Your task to perform on an android device: Show me popular videos on Youtube Image 0: 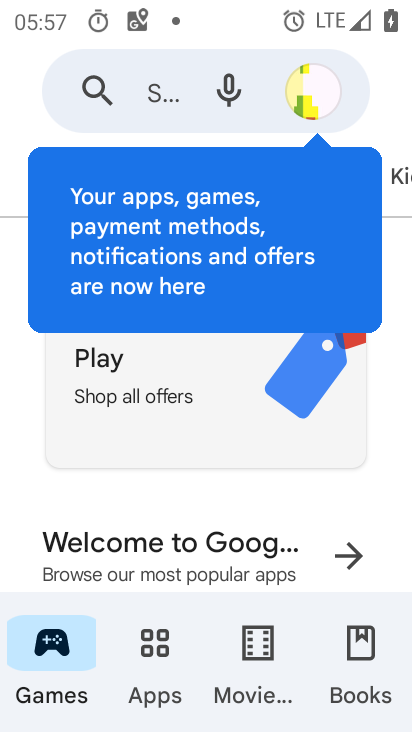
Step 0: press home button
Your task to perform on an android device: Show me popular videos on Youtube Image 1: 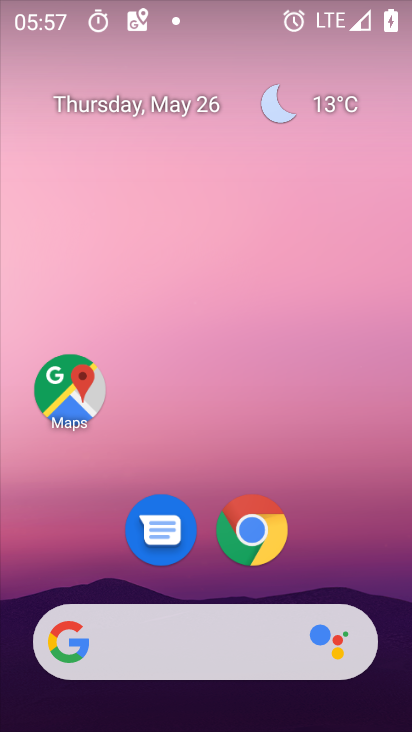
Step 1: drag from (342, 665) to (407, 600)
Your task to perform on an android device: Show me popular videos on Youtube Image 2: 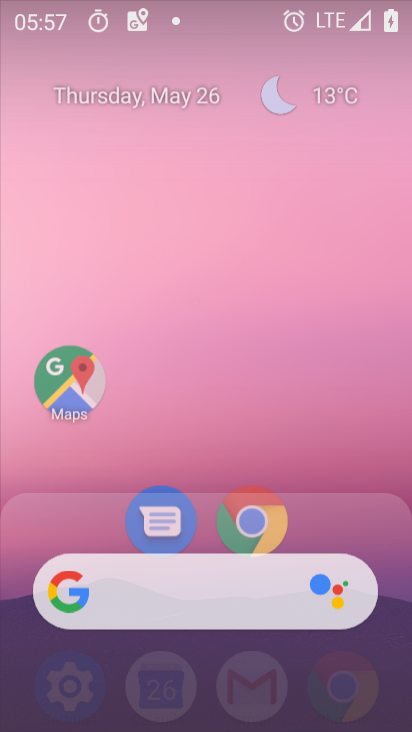
Step 2: drag from (293, 460) to (306, 1)
Your task to perform on an android device: Show me popular videos on Youtube Image 3: 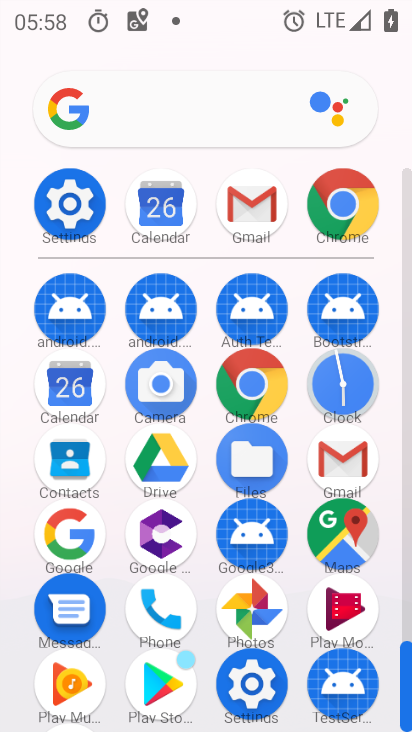
Step 3: drag from (305, 624) to (349, 163)
Your task to perform on an android device: Show me popular videos on Youtube Image 4: 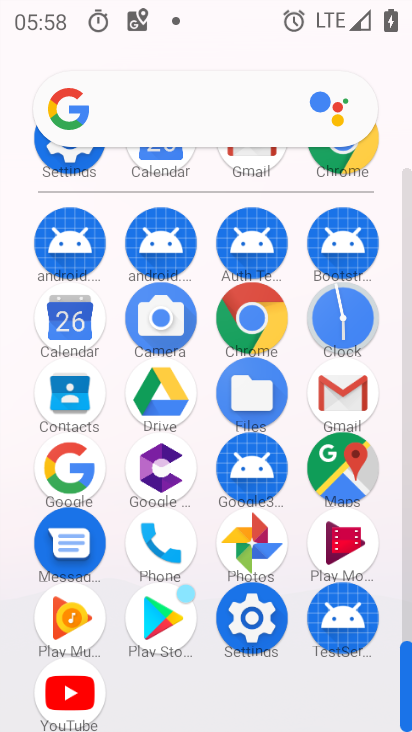
Step 4: click (87, 689)
Your task to perform on an android device: Show me popular videos on Youtube Image 5: 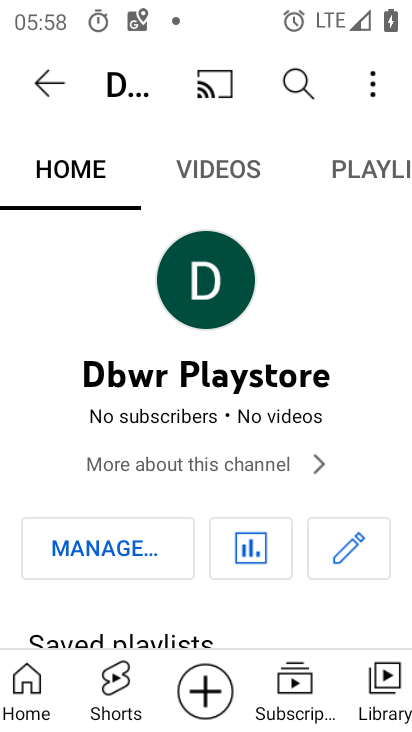
Step 5: click (15, 691)
Your task to perform on an android device: Show me popular videos on Youtube Image 6: 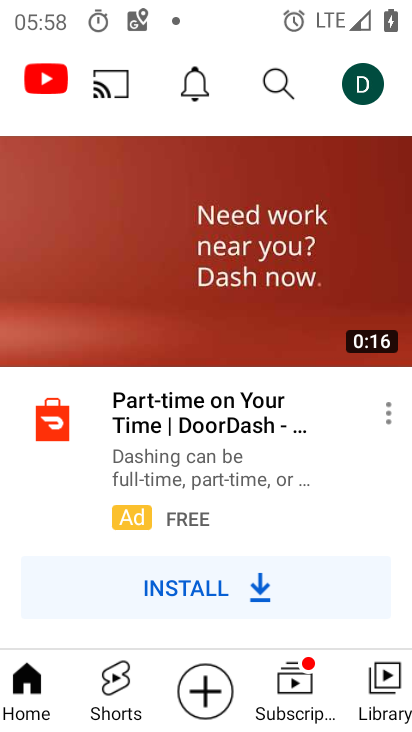
Step 6: task complete